Your task to perform on an android device: Is it going to rain tomorrow? Image 0: 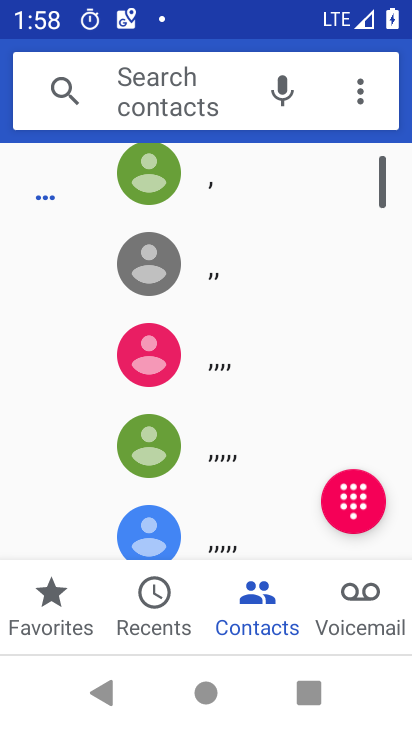
Step 0: press home button
Your task to perform on an android device: Is it going to rain tomorrow? Image 1: 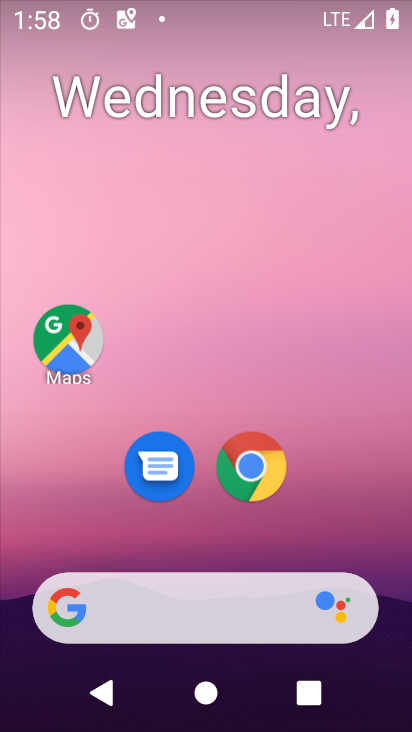
Step 1: click (183, 595)
Your task to perform on an android device: Is it going to rain tomorrow? Image 2: 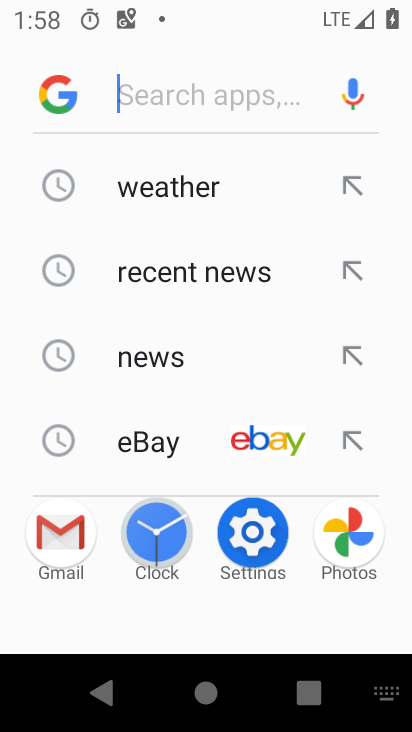
Step 2: click (191, 197)
Your task to perform on an android device: Is it going to rain tomorrow? Image 3: 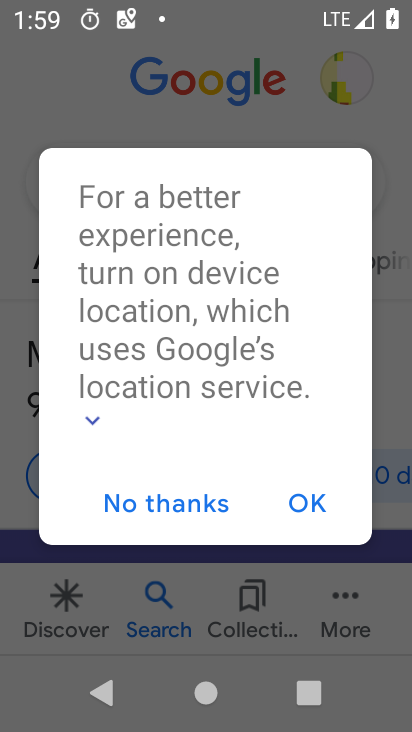
Step 3: click (286, 501)
Your task to perform on an android device: Is it going to rain tomorrow? Image 4: 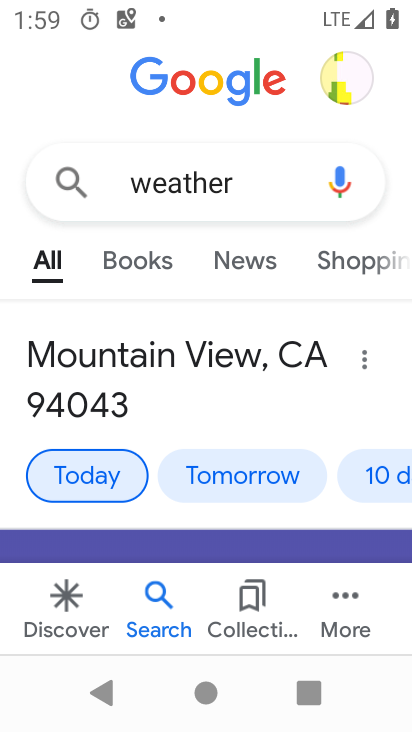
Step 4: click (230, 468)
Your task to perform on an android device: Is it going to rain tomorrow? Image 5: 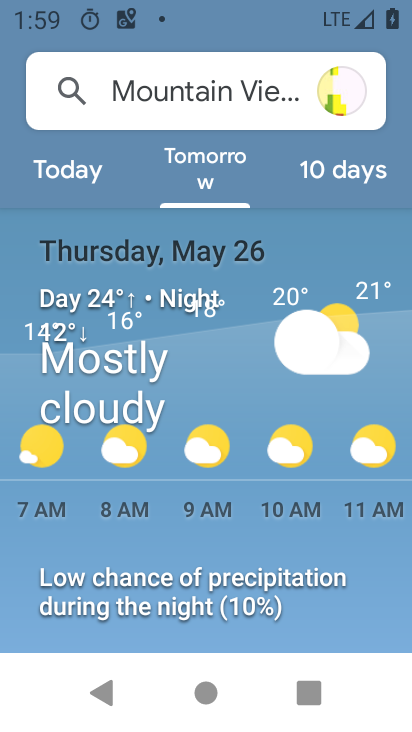
Step 5: task complete